Your task to perform on an android device: toggle location history Image 0: 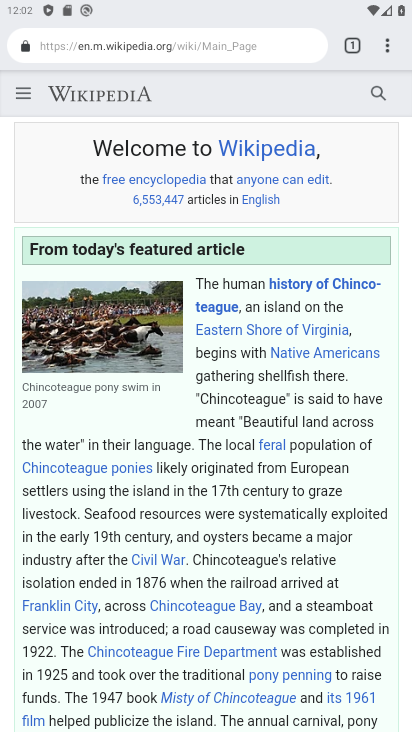
Step 0: press home button
Your task to perform on an android device: toggle location history Image 1: 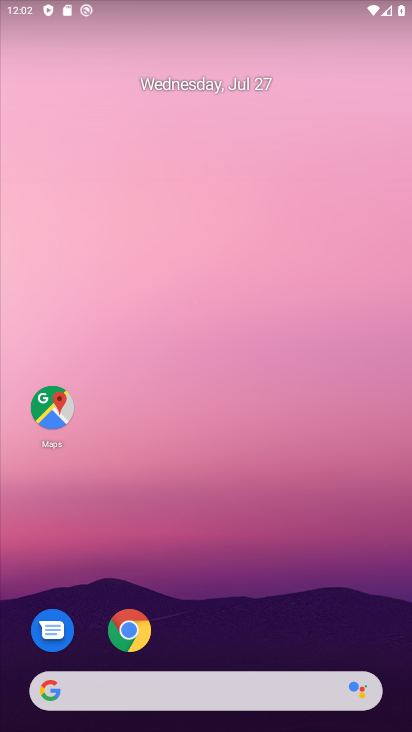
Step 1: drag from (292, 583) to (295, 18)
Your task to perform on an android device: toggle location history Image 2: 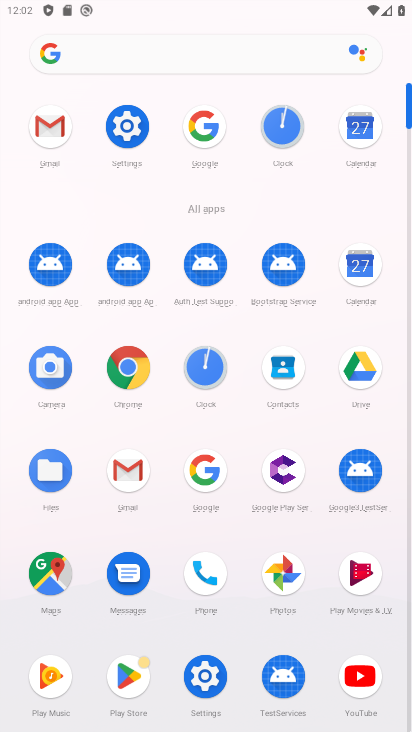
Step 2: click (128, 123)
Your task to perform on an android device: toggle location history Image 3: 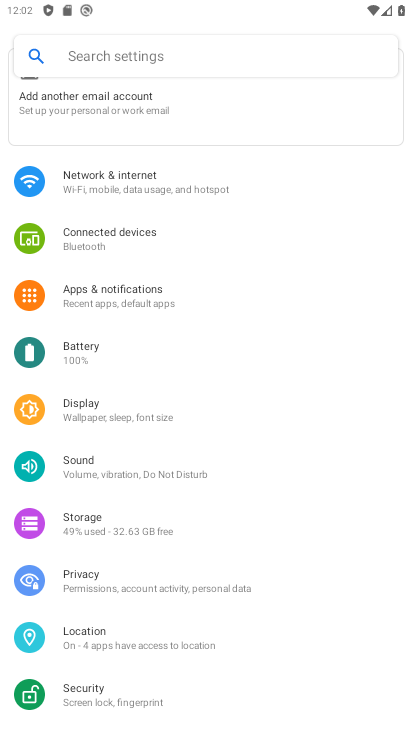
Step 3: click (82, 645)
Your task to perform on an android device: toggle location history Image 4: 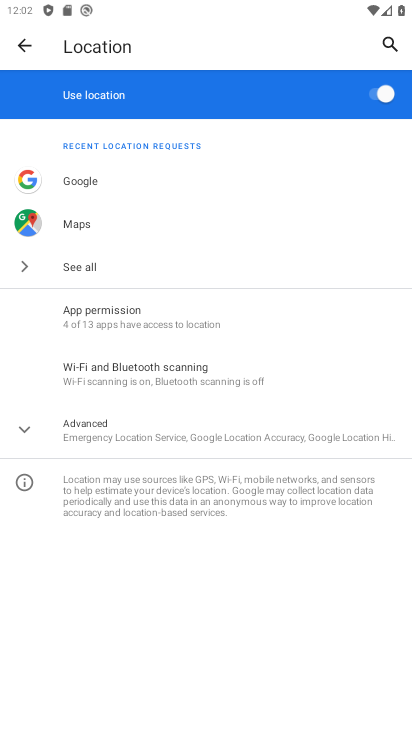
Step 4: click (160, 434)
Your task to perform on an android device: toggle location history Image 5: 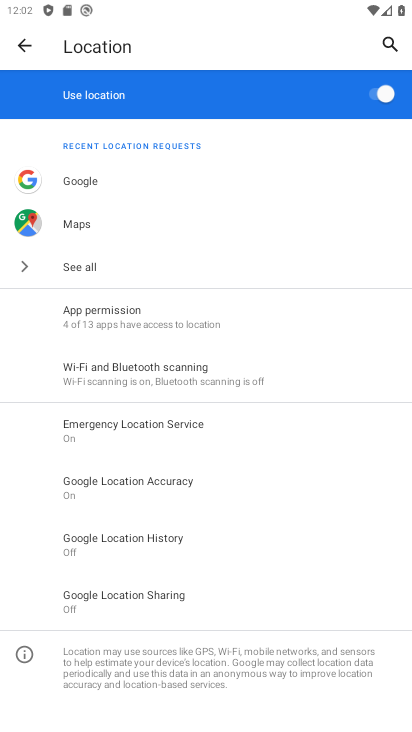
Step 5: click (137, 534)
Your task to perform on an android device: toggle location history Image 6: 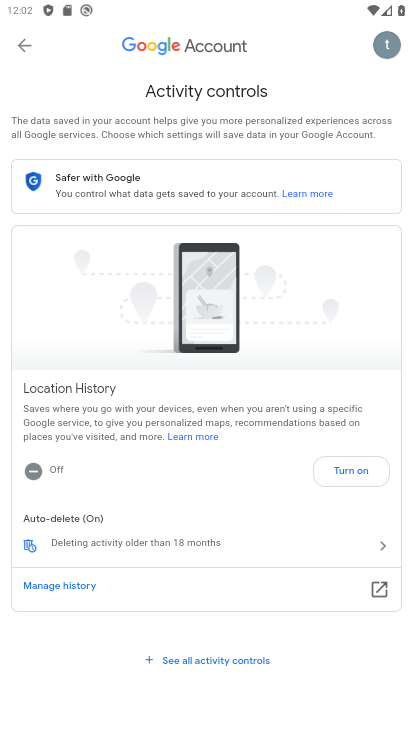
Step 6: click (338, 466)
Your task to perform on an android device: toggle location history Image 7: 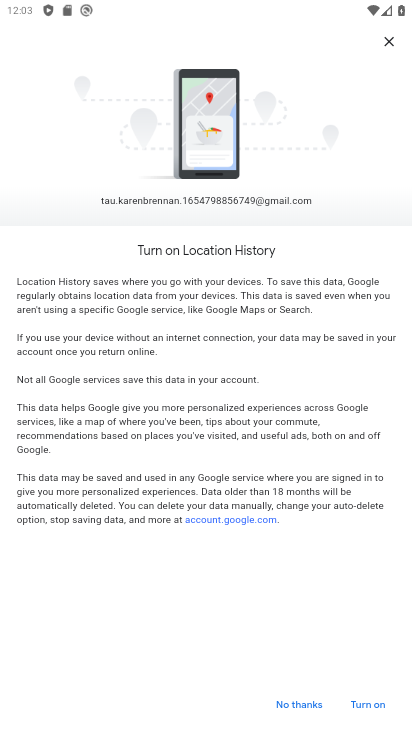
Step 7: click (307, 704)
Your task to perform on an android device: toggle location history Image 8: 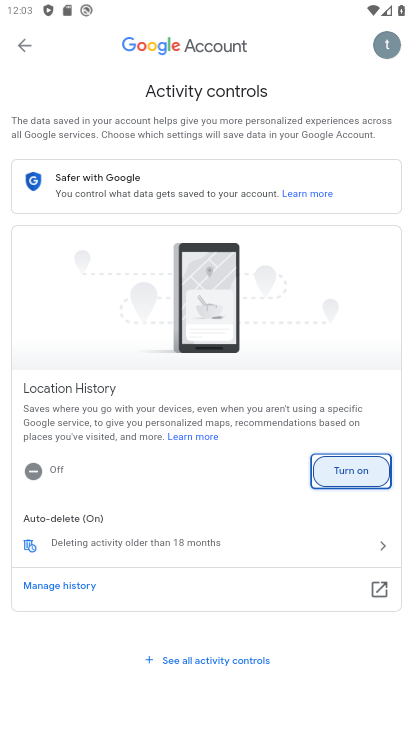
Step 8: click (354, 477)
Your task to perform on an android device: toggle location history Image 9: 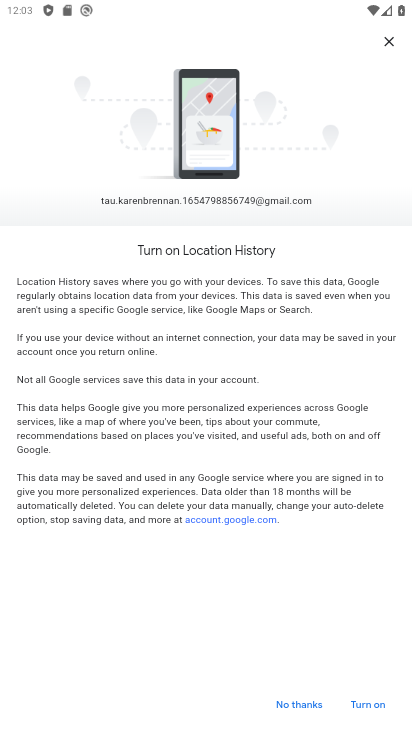
Step 9: click (370, 709)
Your task to perform on an android device: toggle location history Image 10: 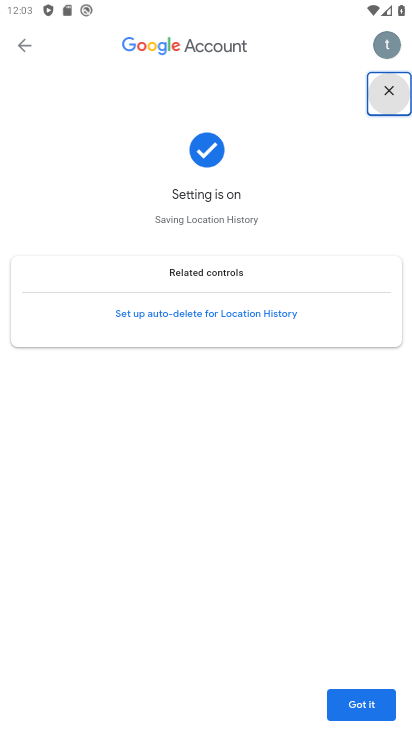
Step 10: click (370, 703)
Your task to perform on an android device: toggle location history Image 11: 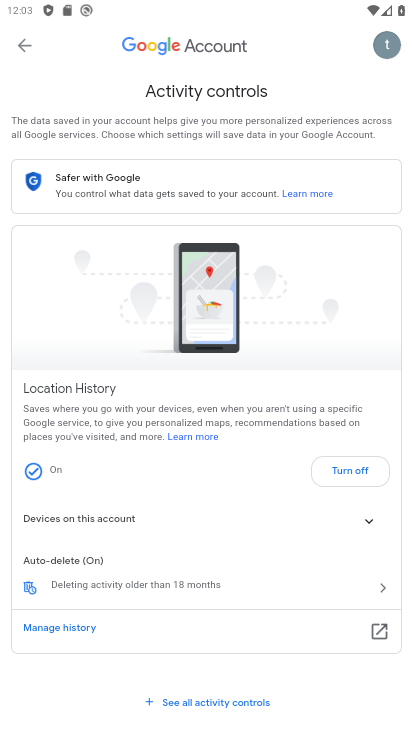
Step 11: task complete